Your task to perform on an android device: turn on location history Image 0: 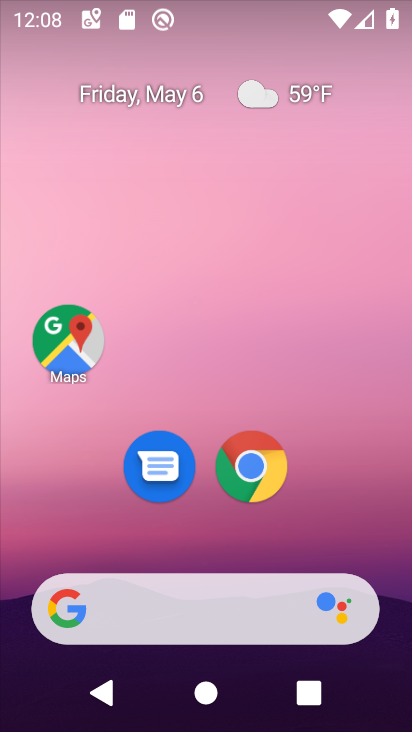
Step 0: drag from (360, 483) to (250, 124)
Your task to perform on an android device: turn on location history Image 1: 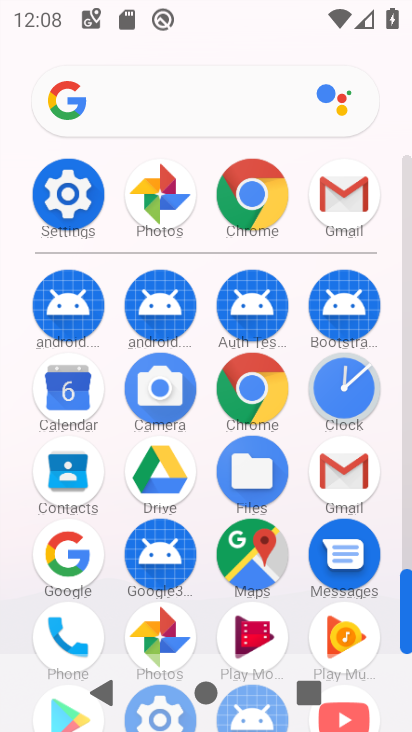
Step 1: click (263, 539)
Your task to perform on an android device: turn on location history Image 2: 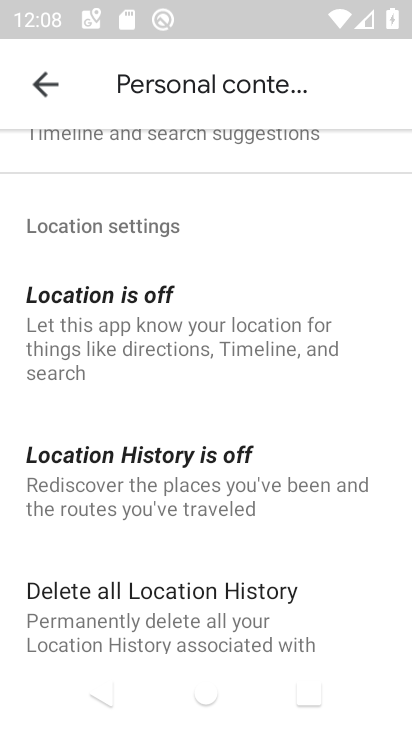
Step 2: click (247, 481)
Your task to perform on an android device: turn on location history Image 3: 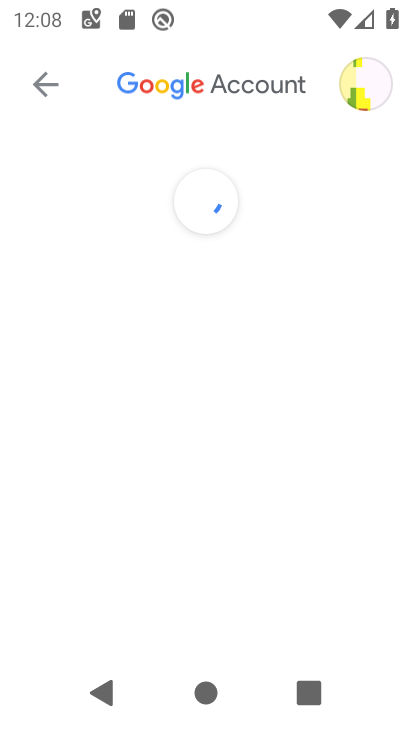
Step 3: task complete